Your task to perform on an android device: Open the map Image 0: 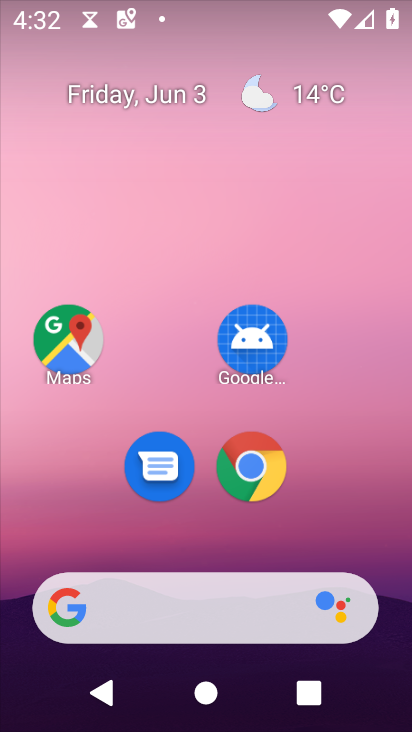
Step 0: click (57, 339)
Your task to perform on an android device: Open the map Image 1: 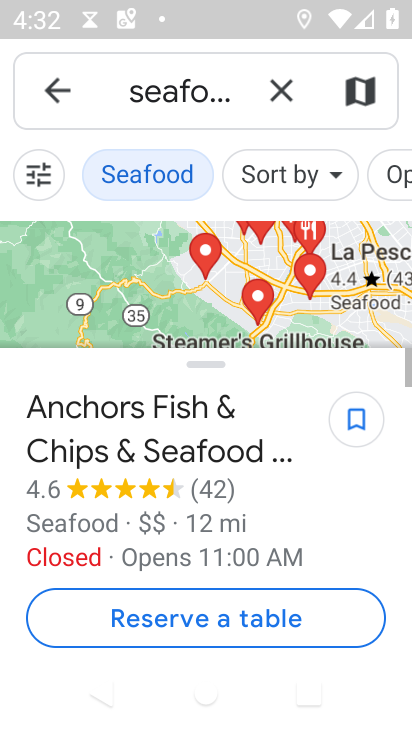
Step 1: task complete